Your task to perform on an android device: turn on showing notifications on the lock screen Image 0: 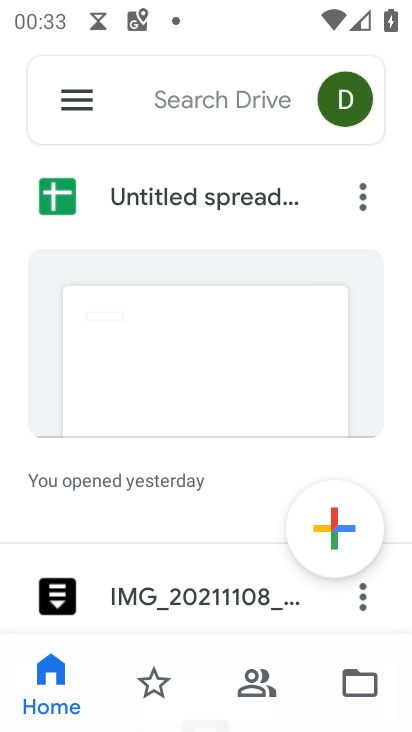
Step 0: press home button
Your task to perform on an android device: turn on showing notifications on the lock screen Image 1: 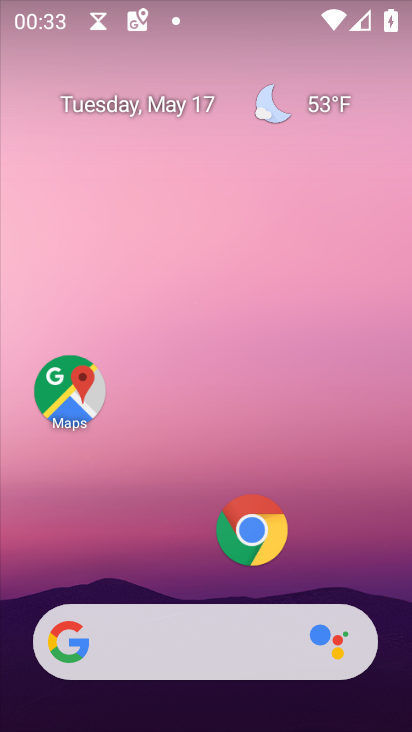
Step 1: drag from (341, 523) to (312, 151)
Your task to perform on an android device: turn on showing notifications on the lock screen Image 2: 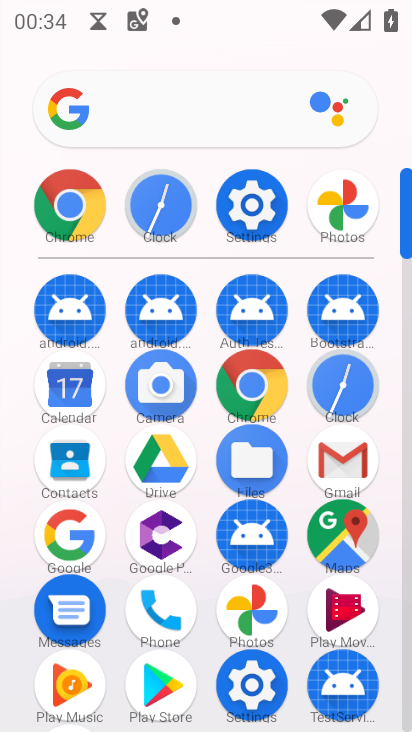
Step 2: click (256, 201)
Your task to perform on an android device: turn on showing notifications on the lock screen Image 3: 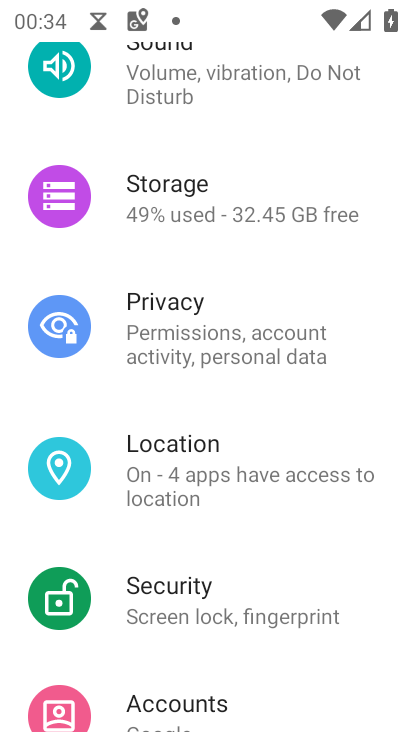
Step 3: drag from (279, 267) to (257, 497)
Your task to perform on an android device: turn on showing notifications on the lock screen Image 4: 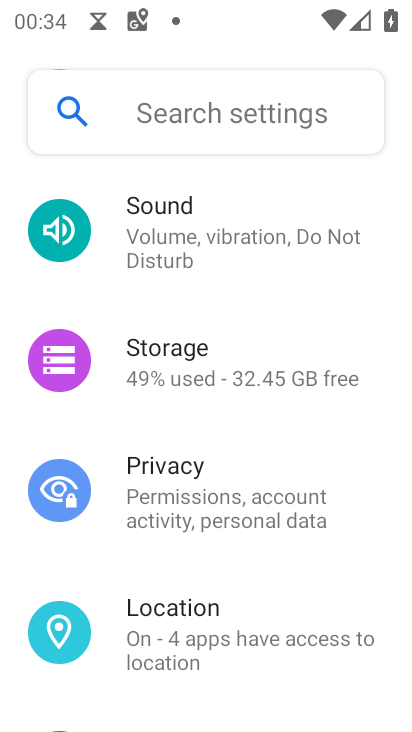
Step 4: drag from (303, 368) to (300, 700)
Your task to perform on an android device: turn on showing notifications on the lock screen Image 5: 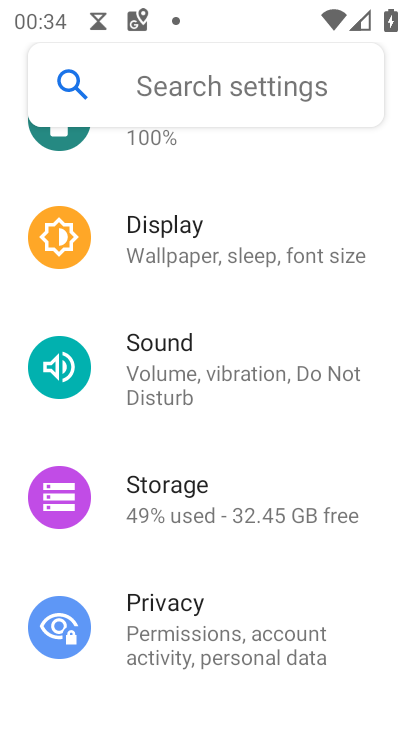
Step 5: drag from (288, 313) to (305, 721)
Your task to perform on an android device: turn on showing notifications on the lock screen Image 6: 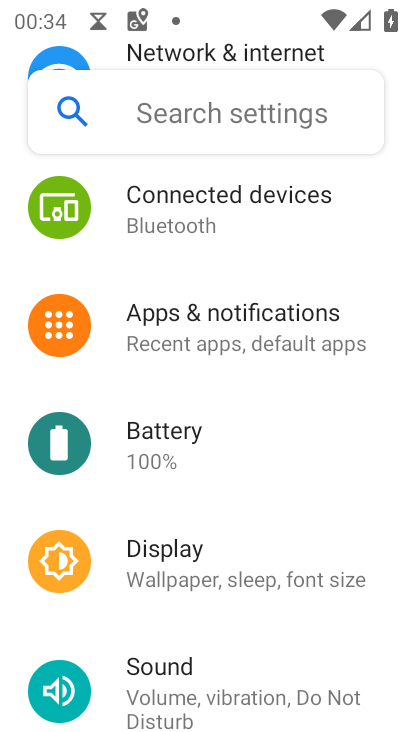
Step 6: click (267, 330)
Your task to perform on an android device: turn on showing notifications on the lock screen Image 7: 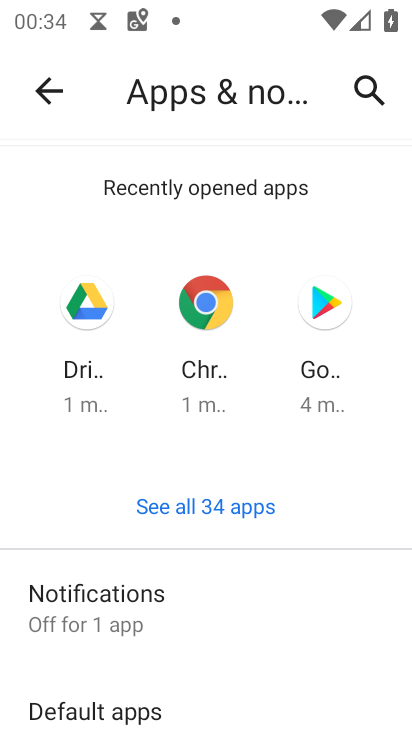
Step 7: click (119, 604)
Your task to perform on an android device: turn on showing notifications on the lock screen Image 8: 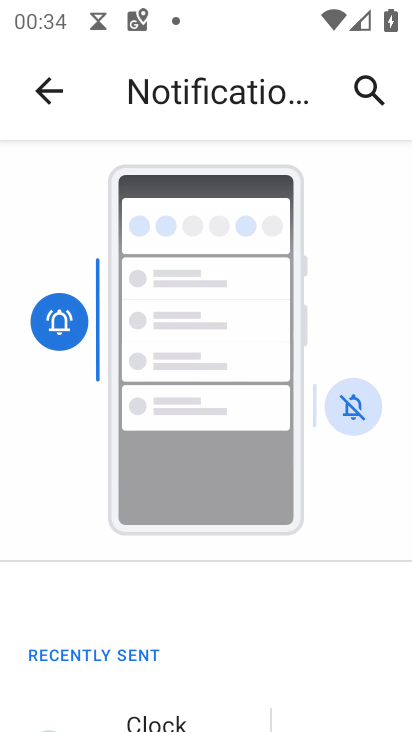
Step 8: drag from (126, 666) to (149, 411)
Your task to perform on an android device: turn on showing notifications on the lock screen Image 9: 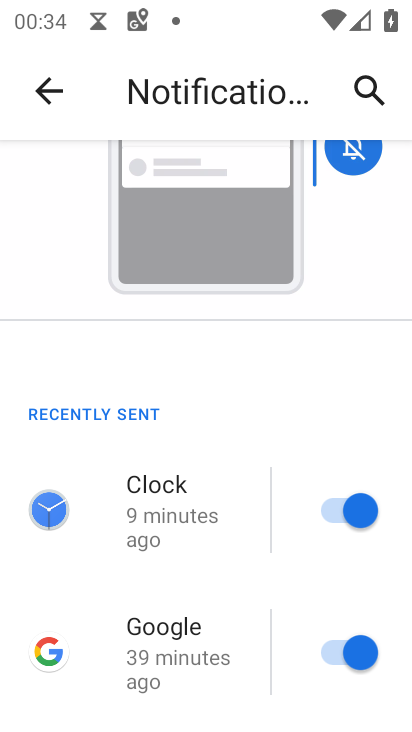
Step 9: drag from (208, 671) to (177, 504)
Your task to perform on an android device: turn on showing notifications on the lock screen Image 10: 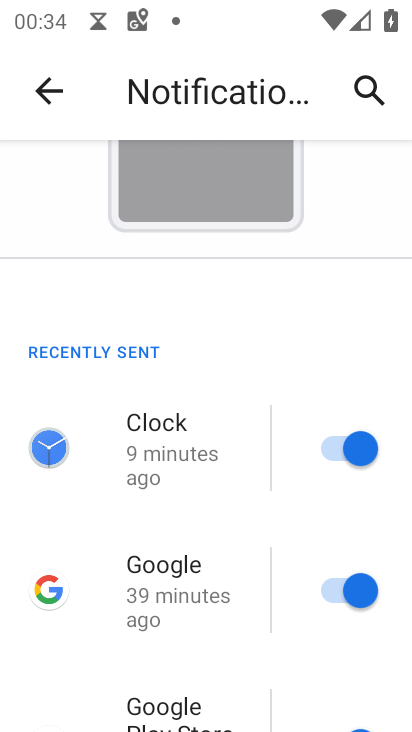
Step 10: drag from (212, 650) to (247, 313)
Your task to perform on an android device: turn on showing notifications on the lock screen Image 11: 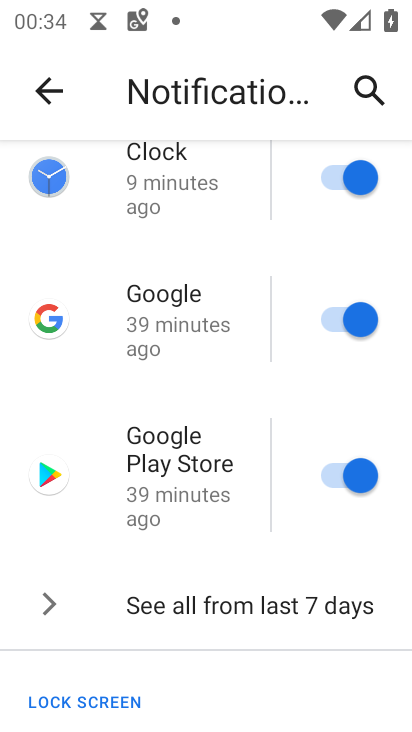
Step 11: drag from (240, 656) to (218, 320)
Your task to perform on an android device: turn on showing notifications on the lock screen Image 12: 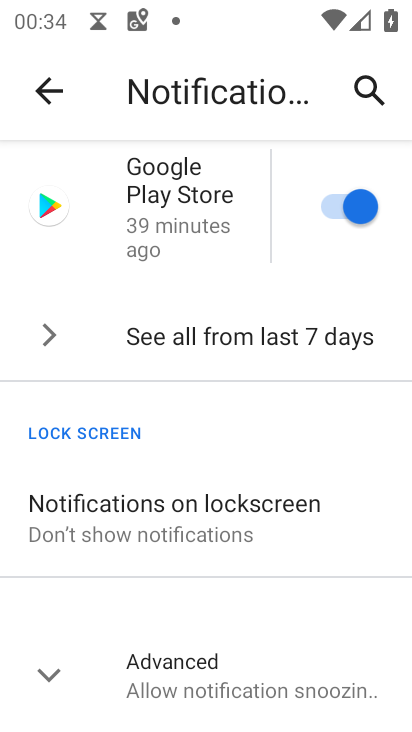
Step 12: click (173, 516)
Your task to perform on an android device: turn on showing notifications on the lock screen Image 13: 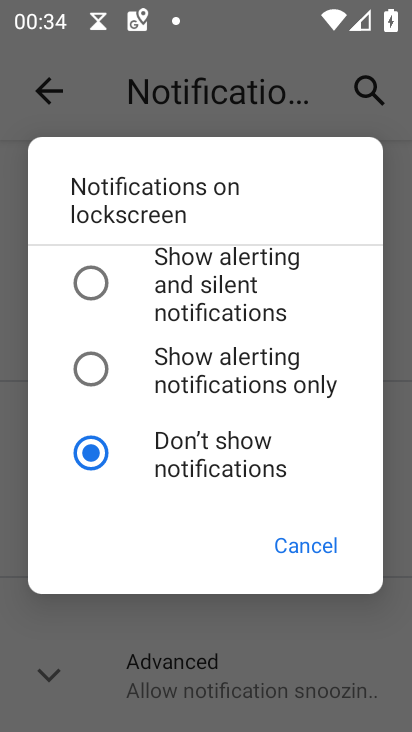
Step 13: click (95, 278)
Your task to perform on an android device: turn on showing notifications on the lock screen Image 14: 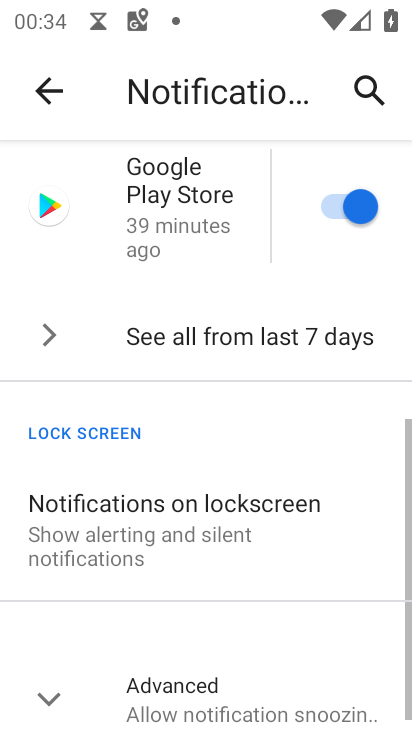
Step 14: task complete